Your task to perform on an android device: turn on the 12-hour format for clock Image 0: 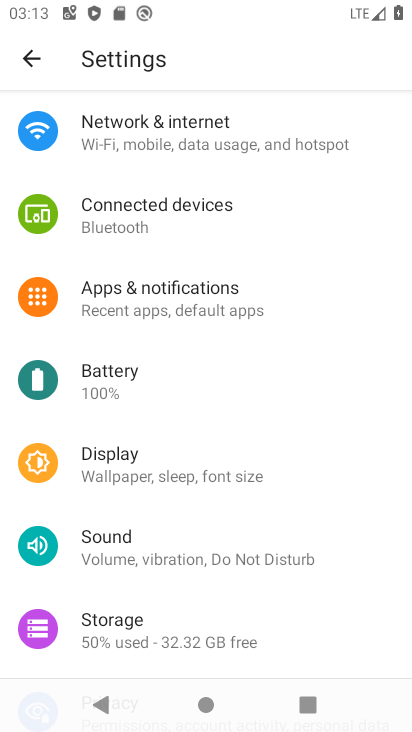
Step 0: press enter
Your task to perform on an android device: turn on the 12-hour format for clock Image 1: 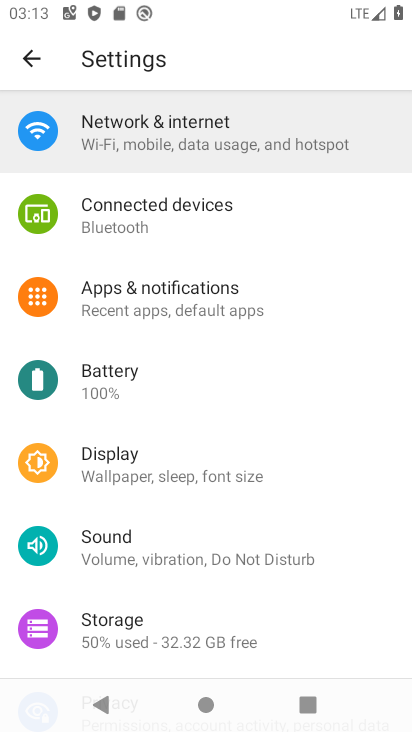
Step 1: press home button
Your task to perform on an android device: turn on the 12-hour format for clock Image 2: 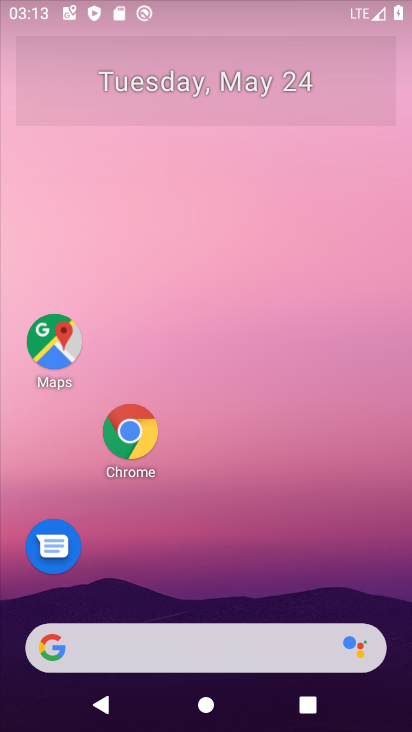
Step 2: drag from (308, 565) to (395, 2)
Your task to perform on an android device: turn on the 12-hour format for clock Image 3: 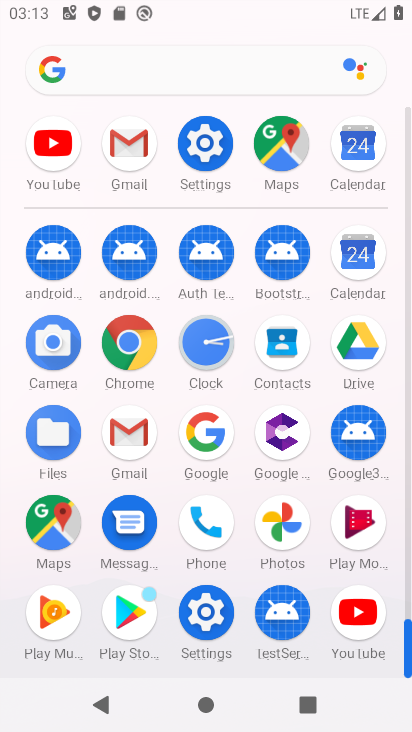
Step 3: click (202, 353)
Your task to perform on an android device: turn on the 12-hour format for clock Image 4: 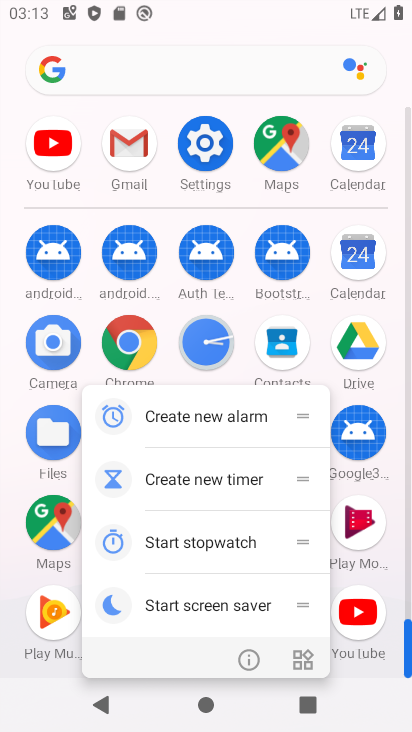
Step 4: click (260, 661)
Your task to perform on an android device: turn on the 12-hour format for clock Image 5: 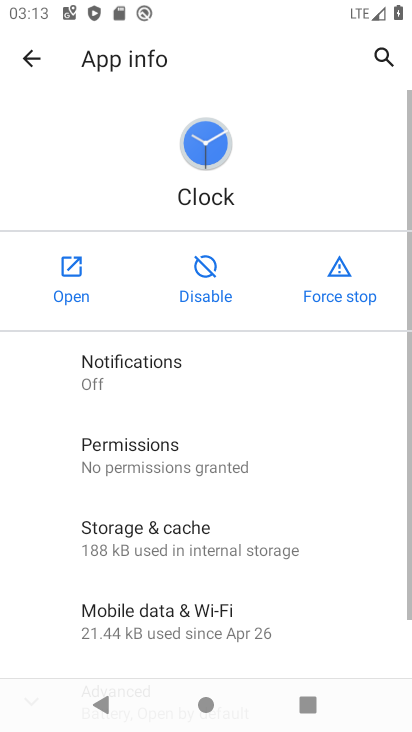
Step 5: click (73, 294)
Your task to perform on an android device: turn on the 12-hour format for clock Image 6: 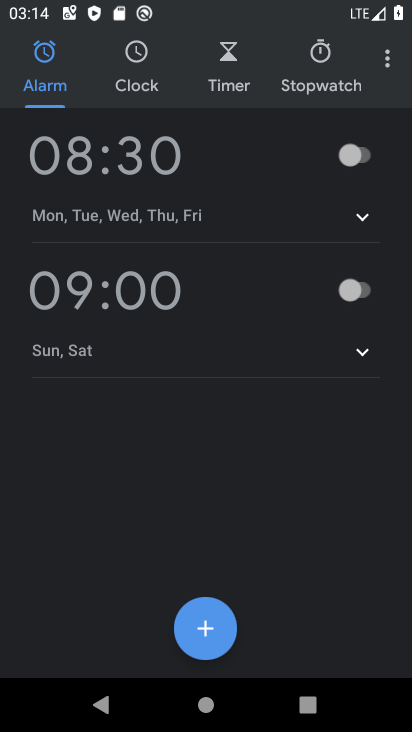
Step 6: click (399, 54)
Your task to perform on an android device: turn on the 12-hour format for clock Image 7: 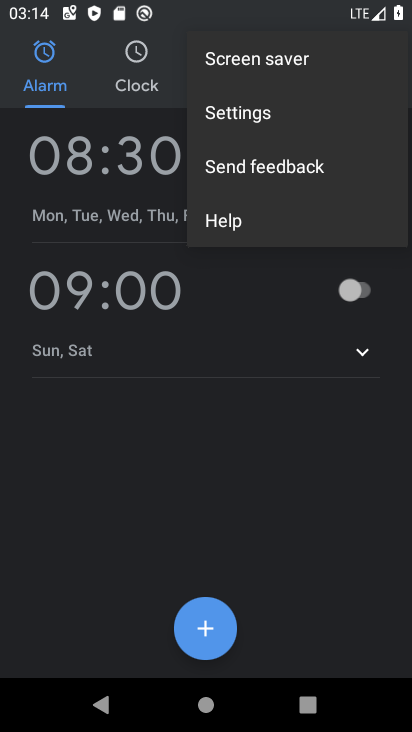
Step 7: click (266, 119)
Your task to perform on an android device: turn on the 12-hour format for clock Image 8: 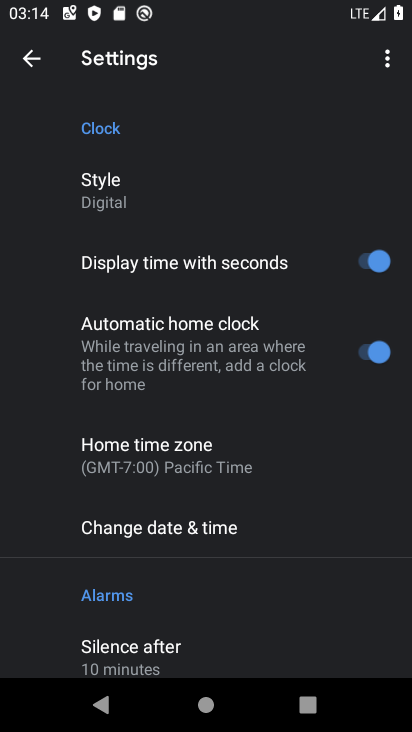
Step 8: click (178, 530)
Your task to perform on an android device: turn on the 12-hour format for clock Image 9: 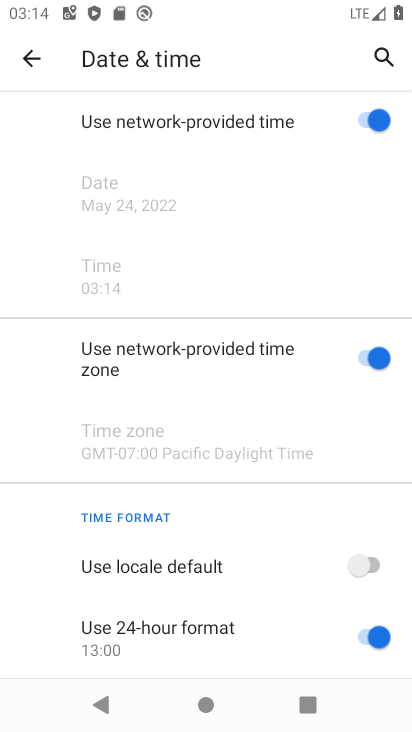
Step 9: drag from (231, 498) to (258, 125)
Your task to perform on an android device: turn on the 12-hour format for clock Image 10: 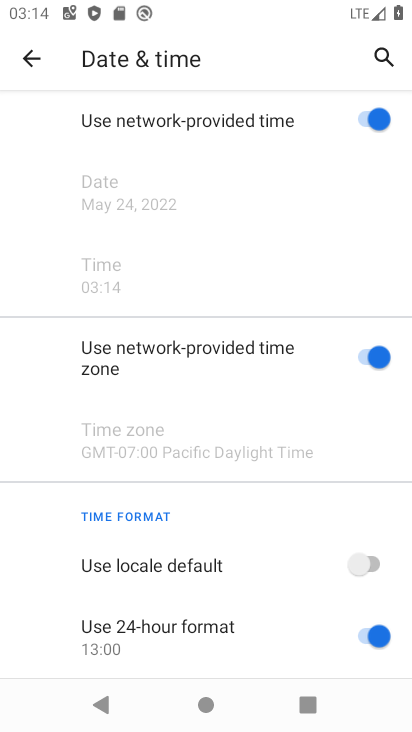
Step 10: drag from (218, 615) to (286, 253)
Your task to perform on an android device: turn on the 12-hour format for clock Image 11: 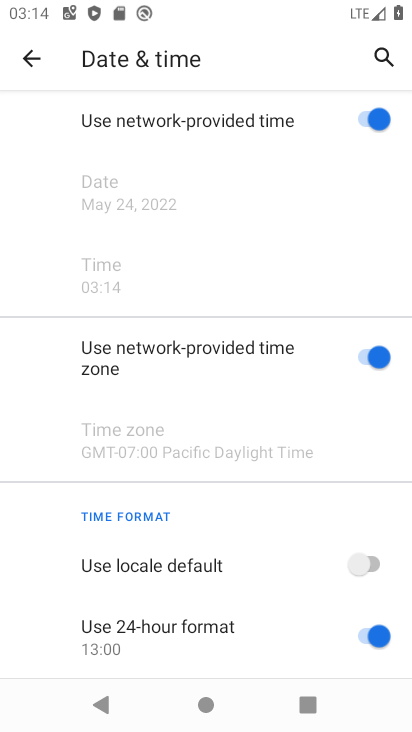
Step 11: click (379, 622)
Your task to perform on an android device: turn on the 12-hour format for clock Image 12: 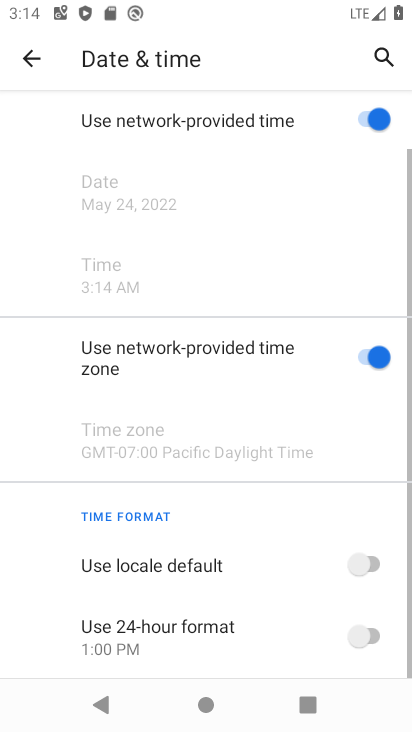
Step 12: task complete